Your task to perform on an android device: turn on wifi Image 0: 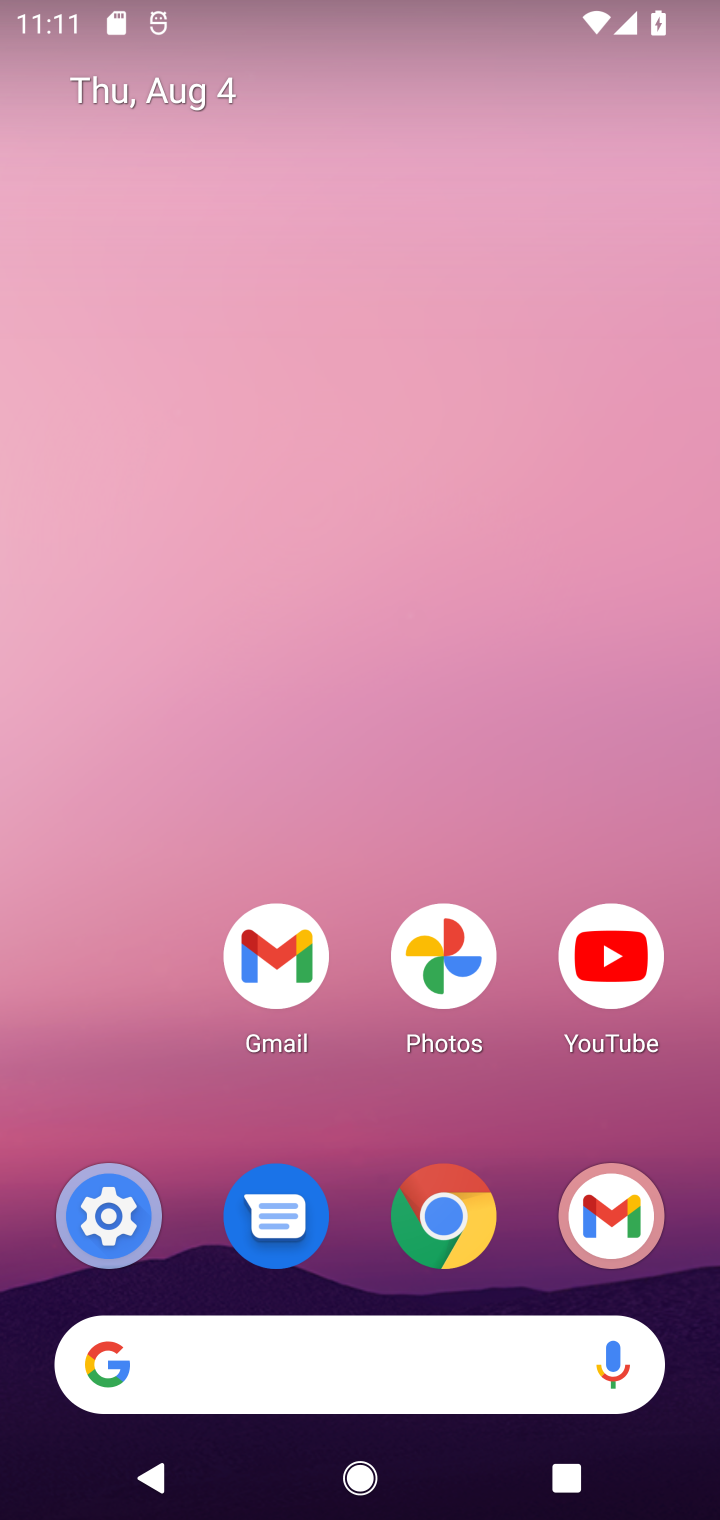
Step 0: drag from (160, 953) to (288, 26)
Your task to perform on an android device: turn on wifi Image 1: 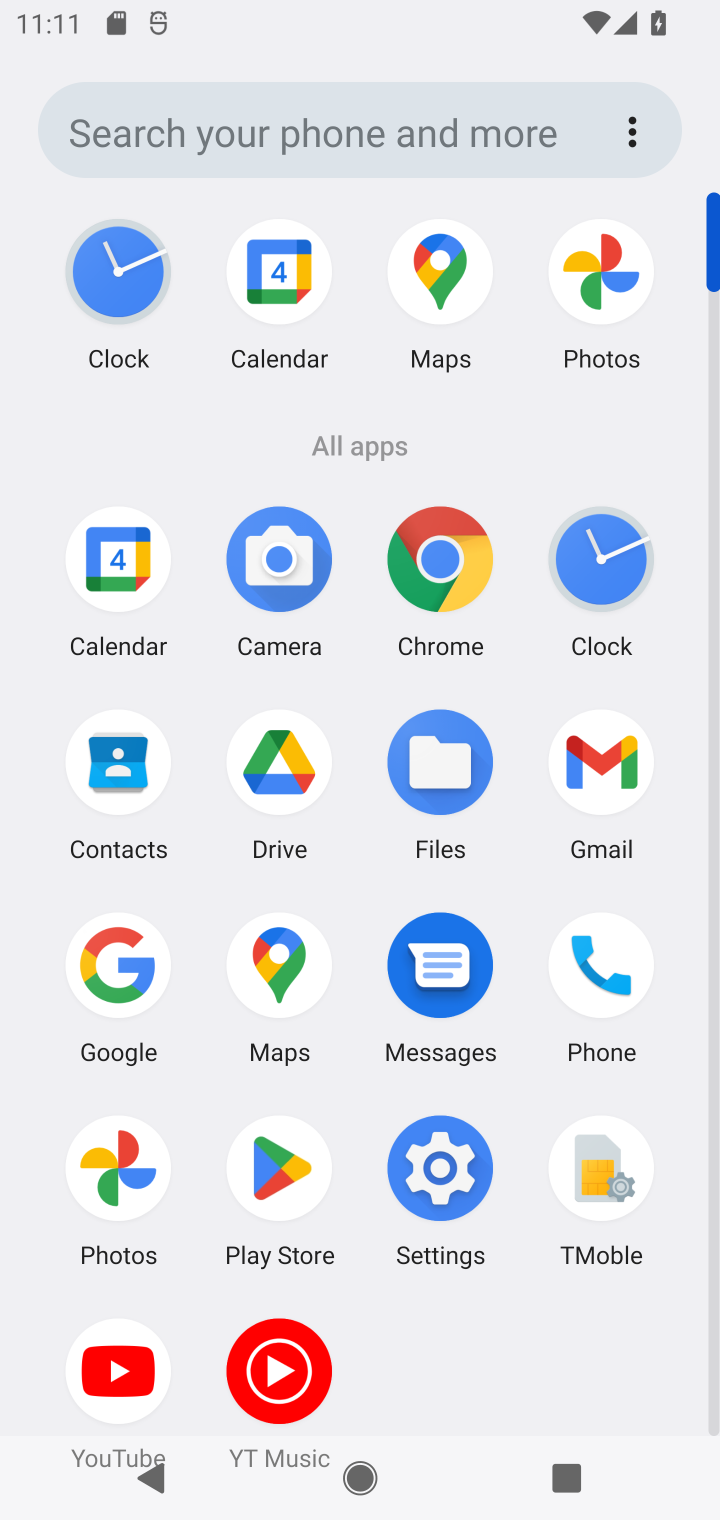
Step 1: click (437, 1173)
Your task to perform on an android device: turn on wifi Image 2: 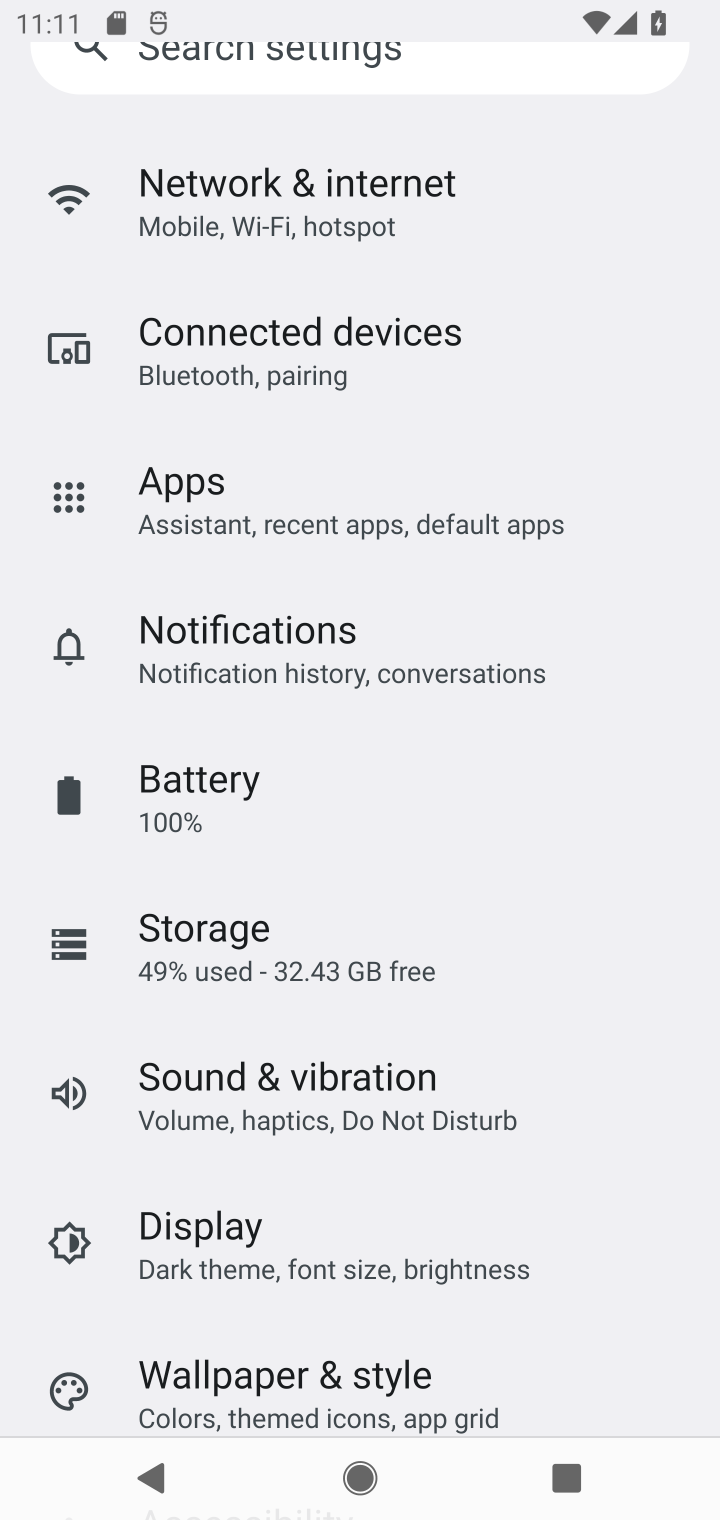
Step 2: click (334, 206)
Your task to perform on an android device: turn on wifi Image 3: 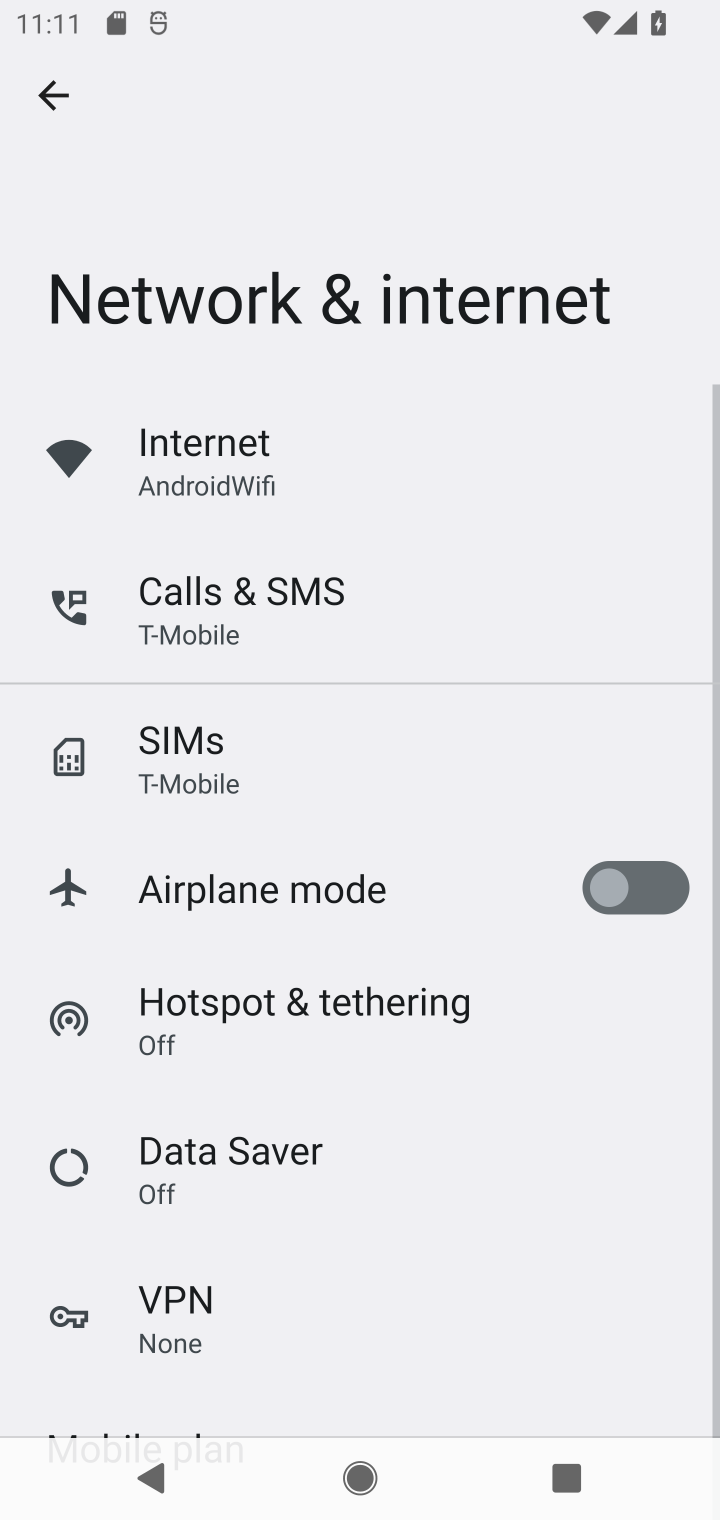
Step 3: click (230, 469)
Your task to perform on an android device: turn on wifi Image 4: 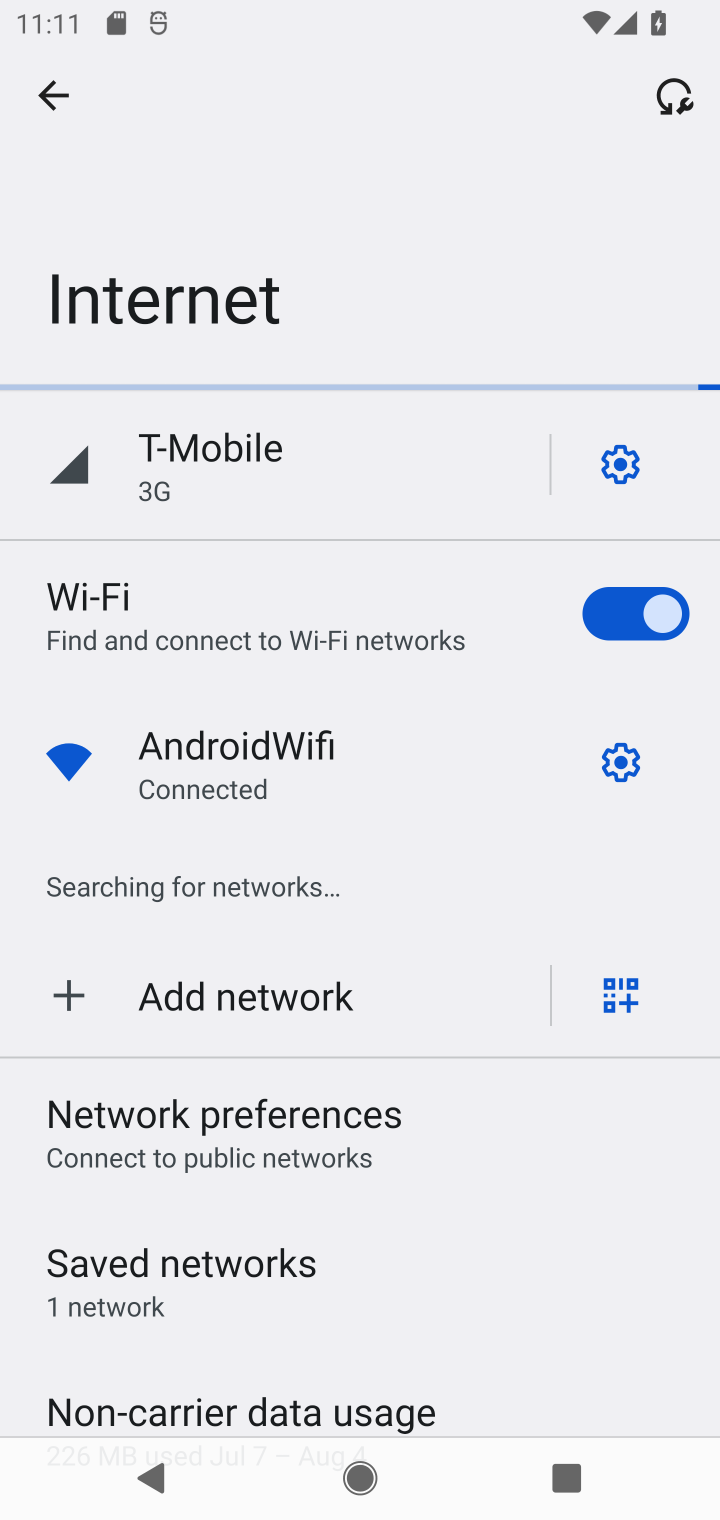
Step 4: task complete